Your task to perform on an android device: Go to privacy settings Image 0: 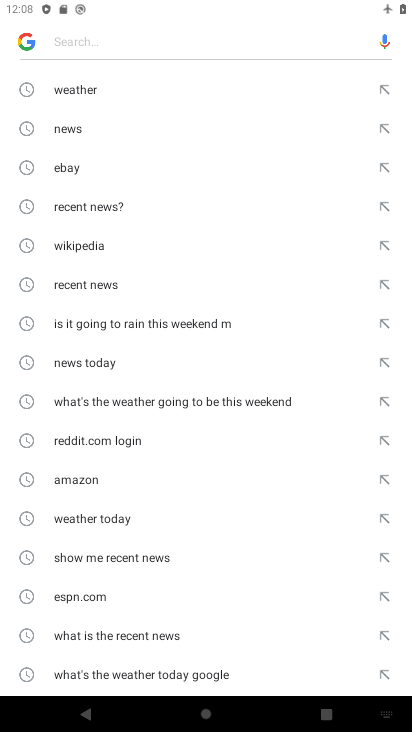
Step 0: press home button
Your task to perform on an android device: Go to privacy settings Image 1: 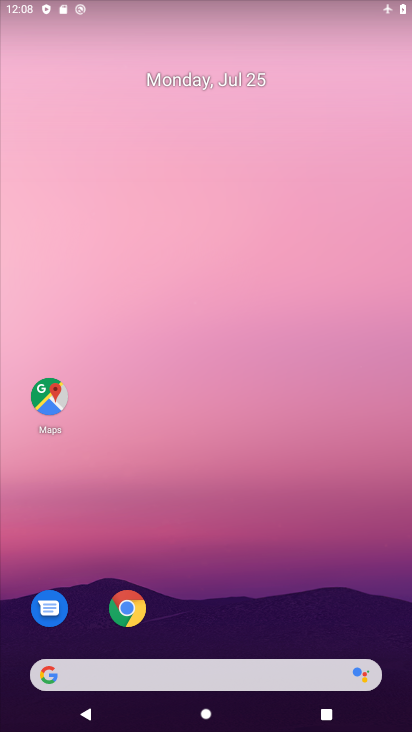
Step 1: drag from (249, 624) to (241, 186)
Your task to perform on an android device: Go to privacy settings Image 2: 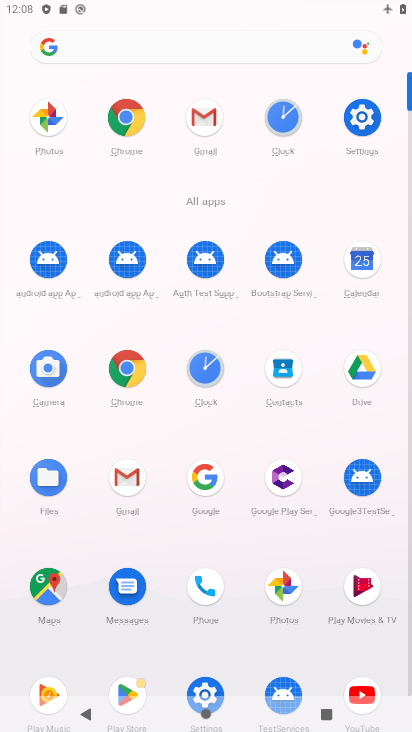
Step 2: click (373, 125)
Your task to perform on an android device: Go to privacy settings Image 3: 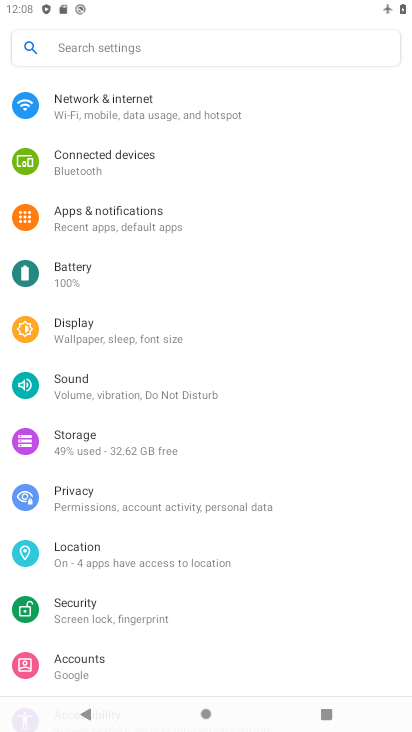
Step 3: click (143, 507)
Your task to perform on an android device: Go to privacy settings Image 4: 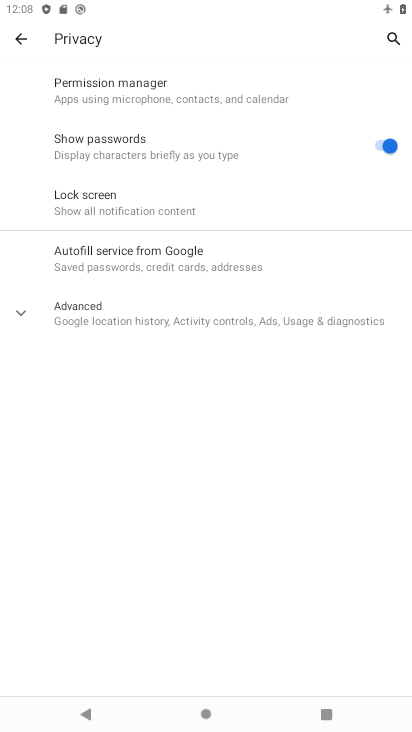
Step 4: task complete